Your task to perform on an android device: Search for dell xps on ebay.com, select the first entry, and add it to the cart. Image 0: 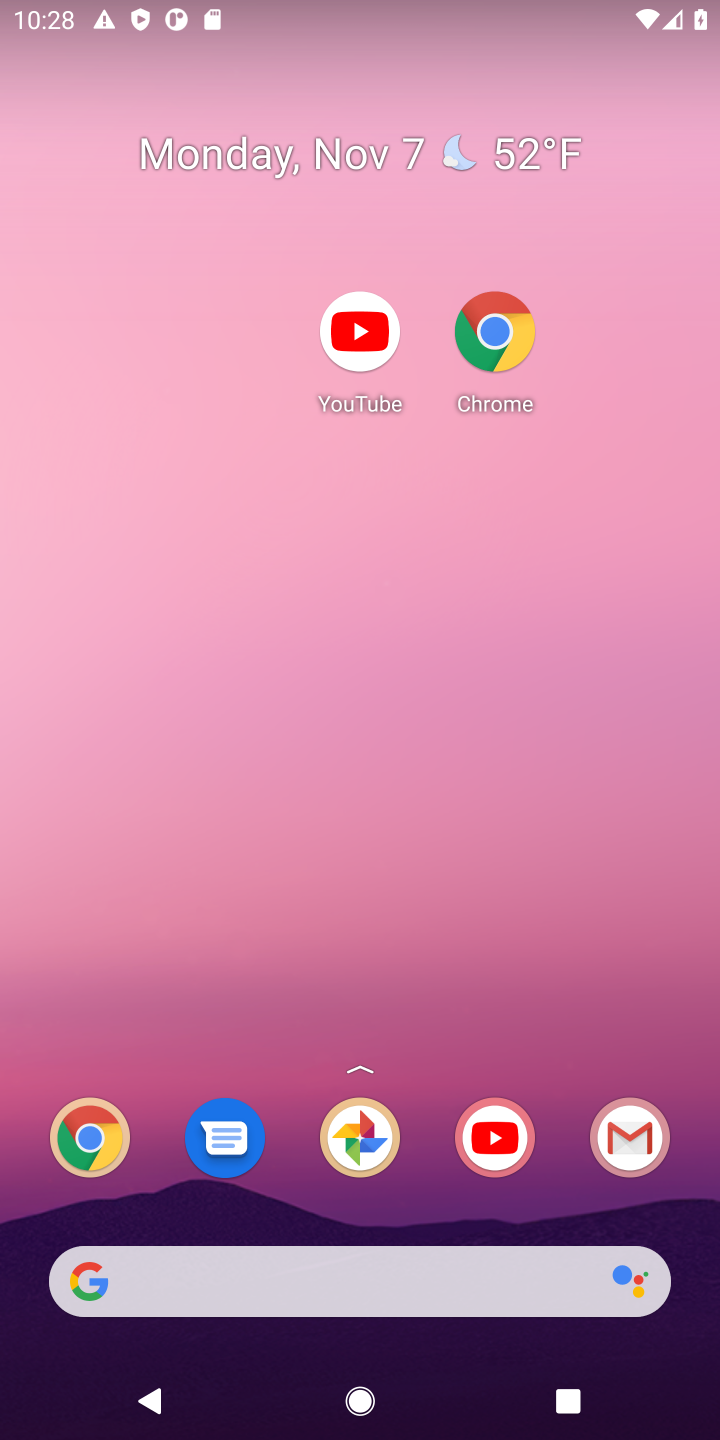
Step 0: press home button
Your task to perform on an android device: Search for dell xps on ebay.com, select the first entry, and add it to the cart. Image 1: 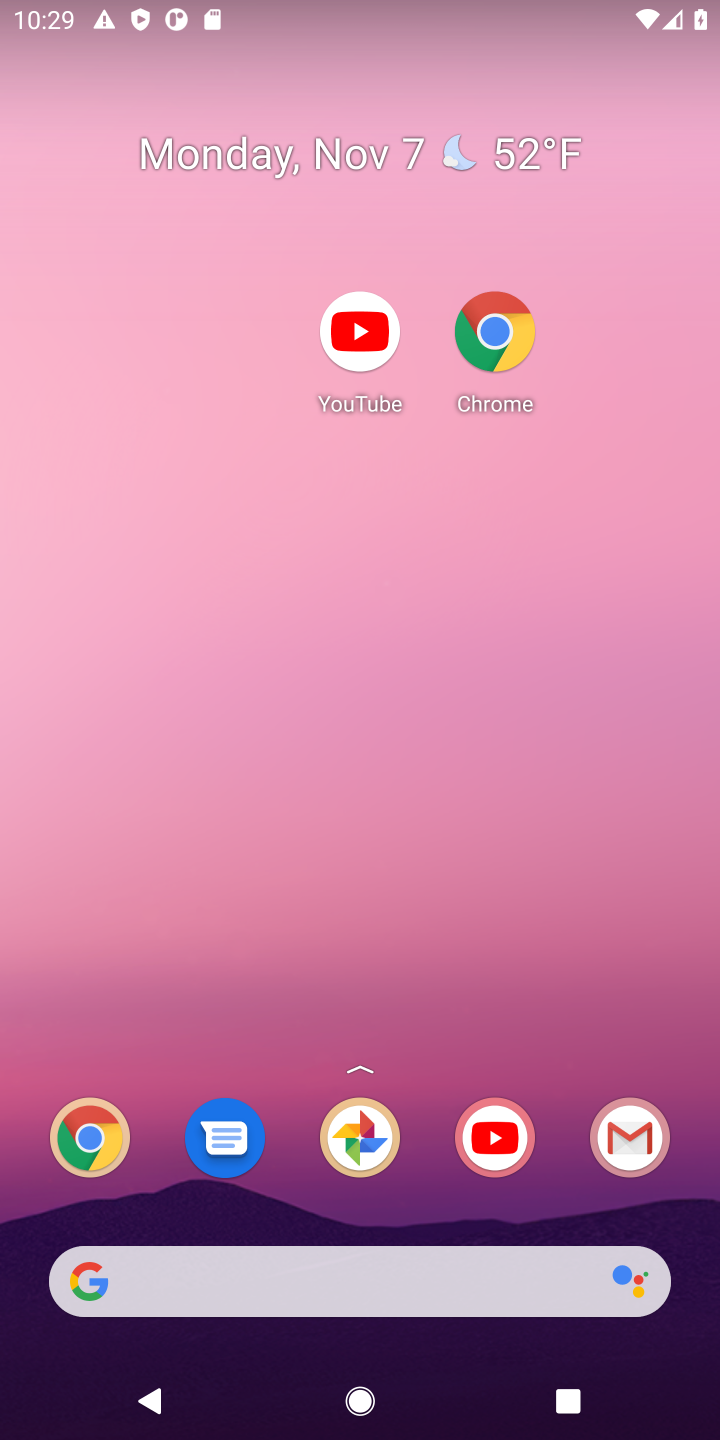
Step 1: drag from (371, 950) to (331, 206)
Your task to perform on an android device: Search for dell xps on ebay.com, select the first entry, and add it to the cart. Image 2: 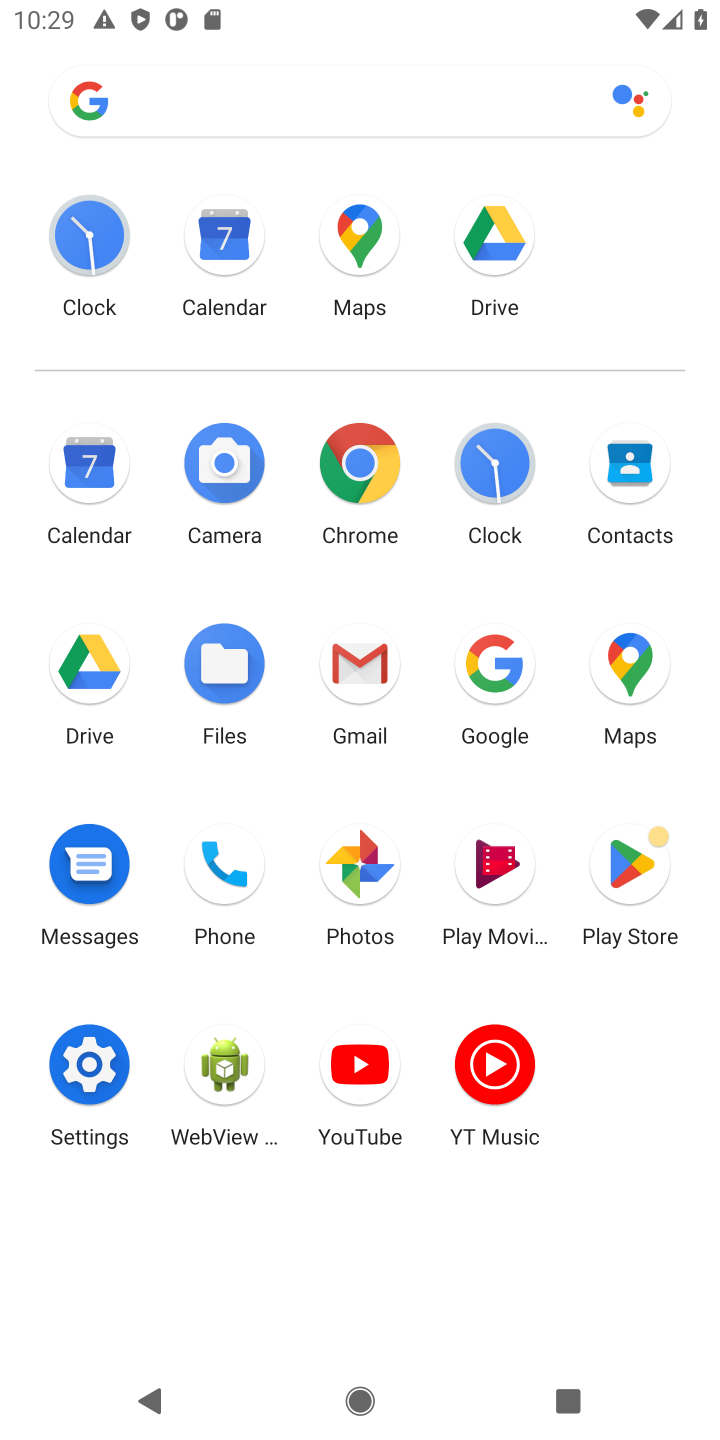
Step 2: click (361, 454)
Your task to perform on an android device: Search for dell xps on ebay.com, select the first entry, and add it to the cart. Image 3: 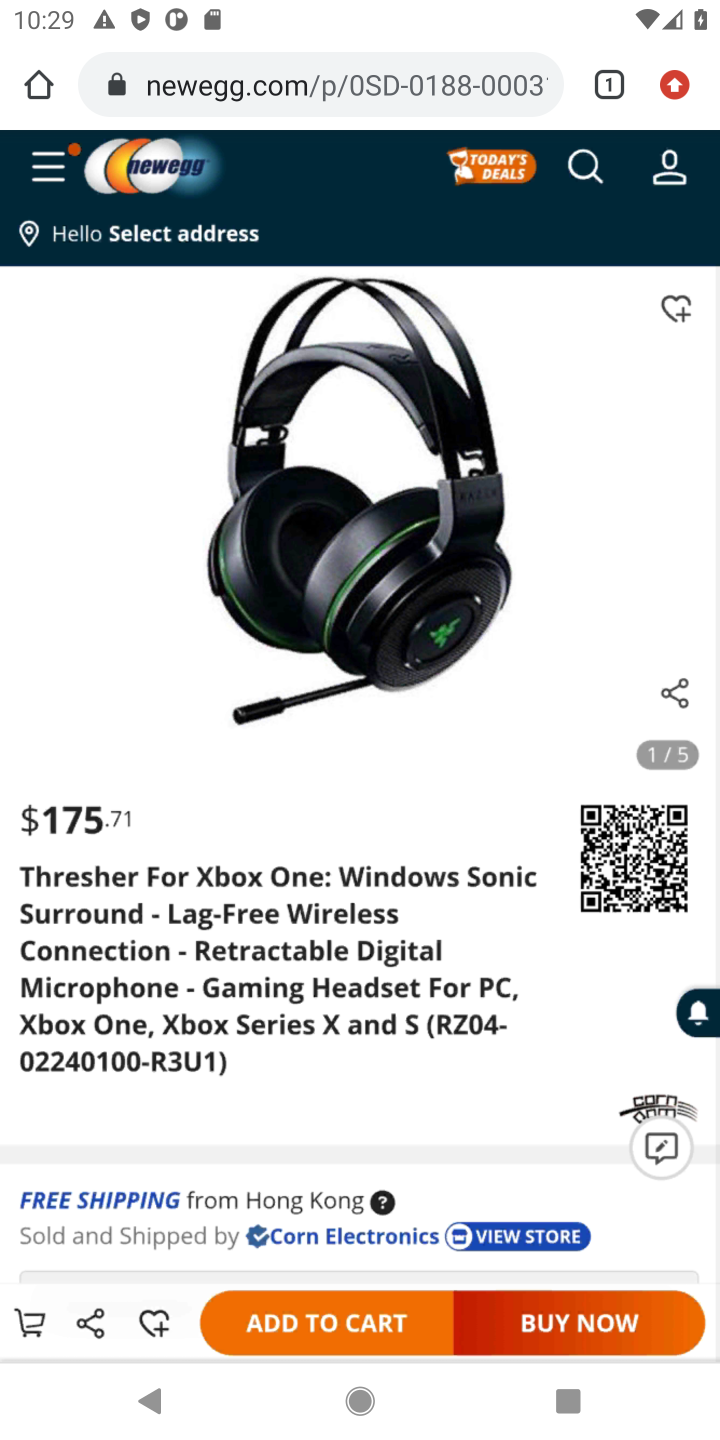
Step 3: click (272, 89)
Your task to perform on an android device: Search for dell xps on ebay.com, select the first entry, and add it to the cart. Image 4: 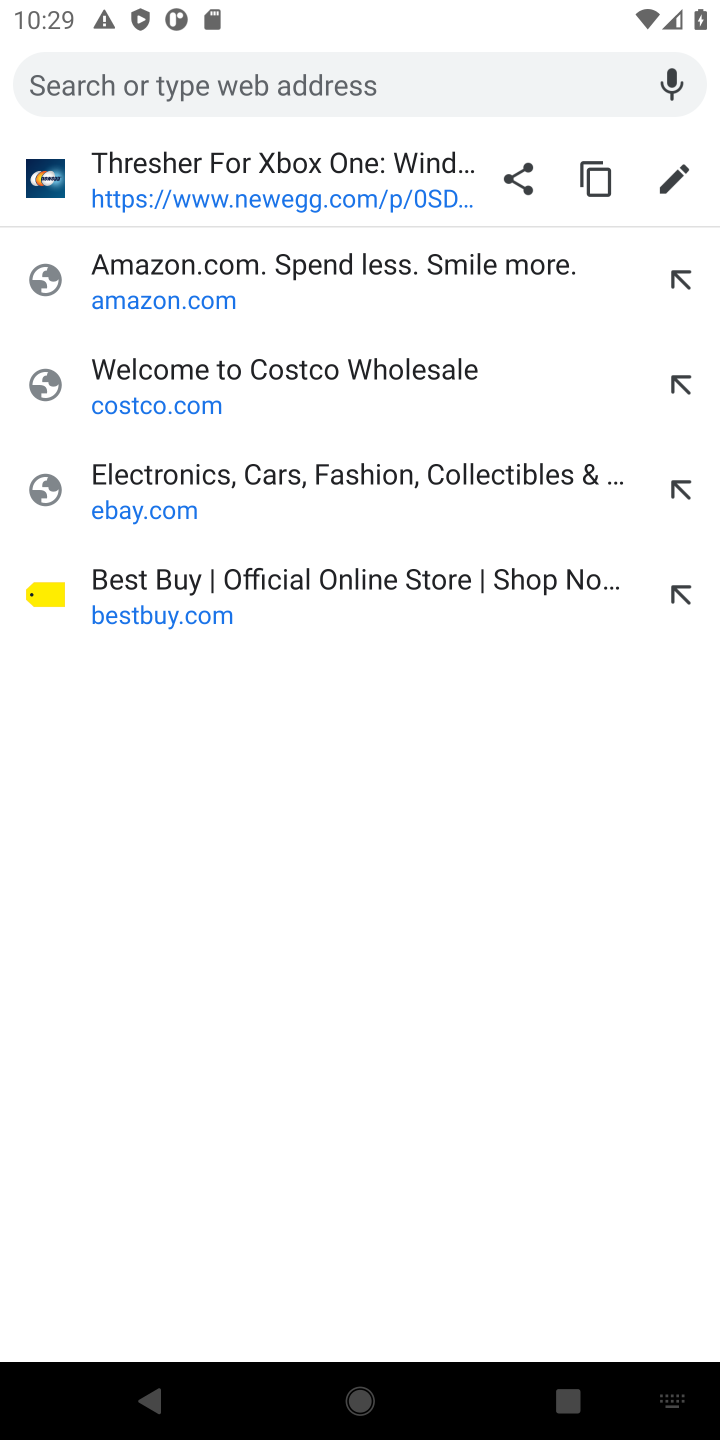
Step 4: type "ebay.com"
Your task to perform on an android device: Search for dell xps on ebay.com, select the first entry, and add it to the cart. Image 5: 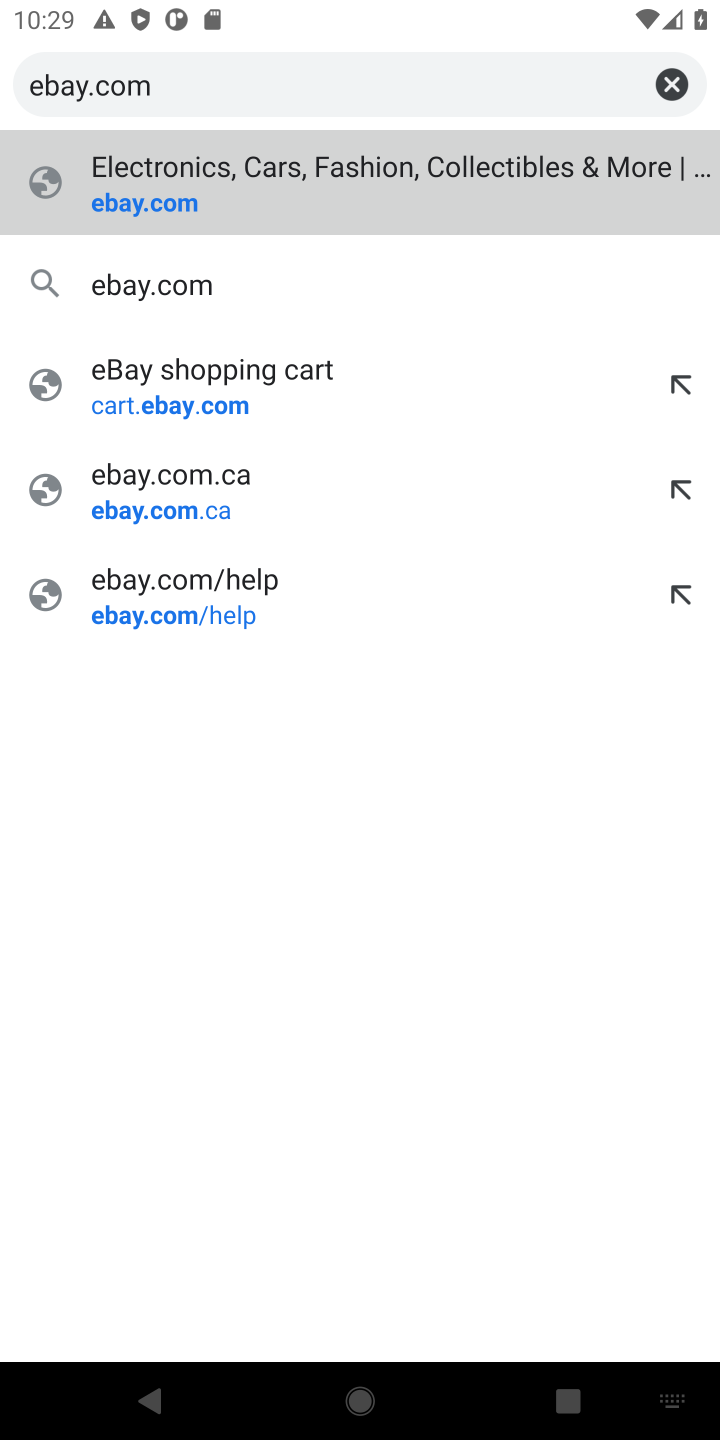
Step 5: press enter
Your task to perform on an android device: Search for dell xps on ebay.com, select the first entry, and add it to the cart. Image 6: 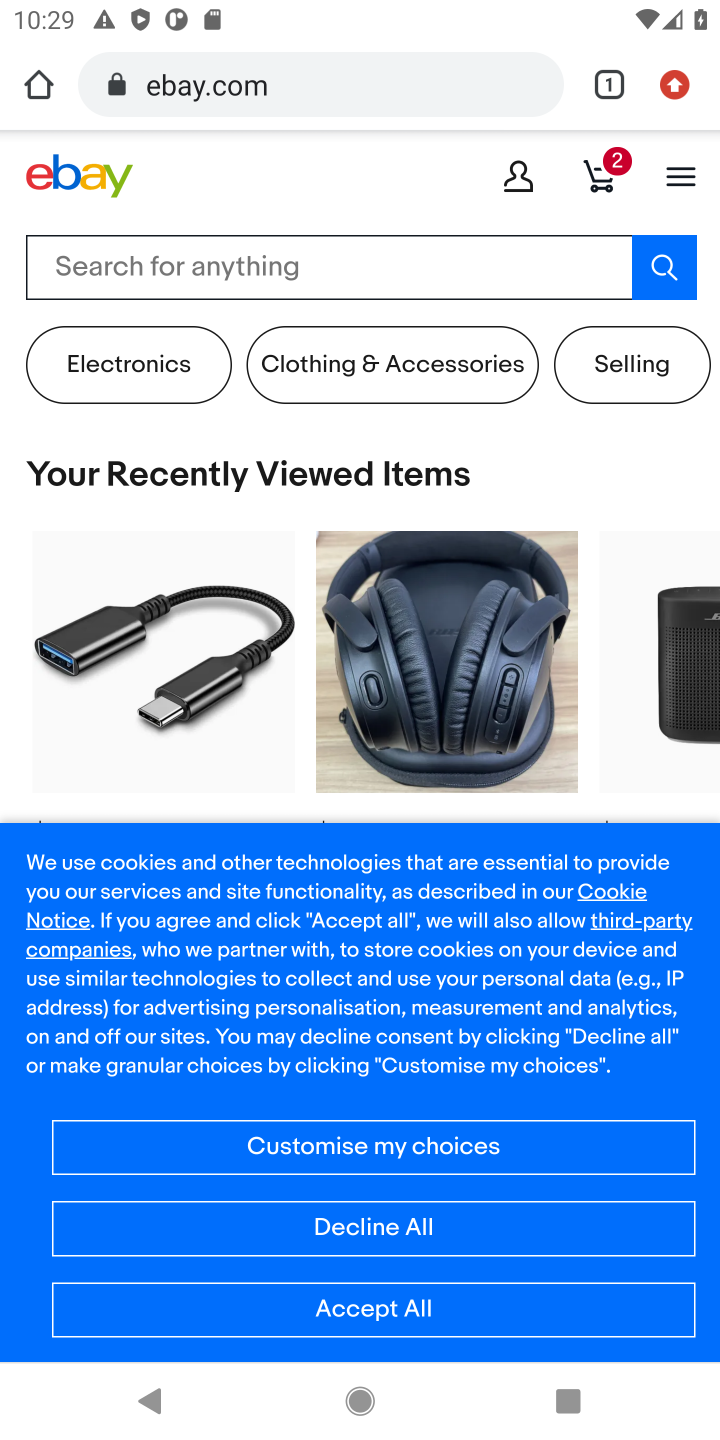
Step 6: click (469, 283)
Your task to perform on an android device: Search for dell xps on ebay.com, select the first entry, and add it to the cart. Image 7: 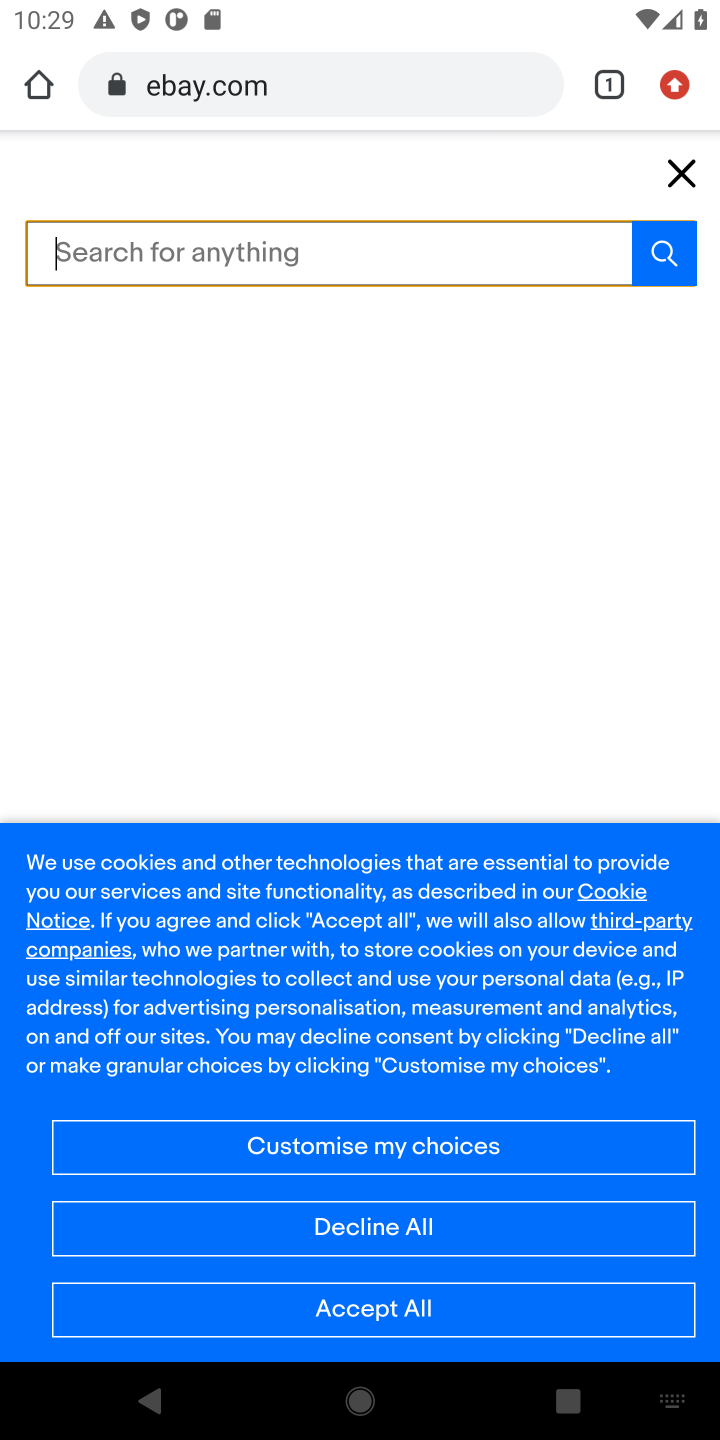
Step 7: type "dell xps"
Your task to perform on an android device: Search for dell xps on ebay.com, select the first entry, and add it to the cart. Image 8: 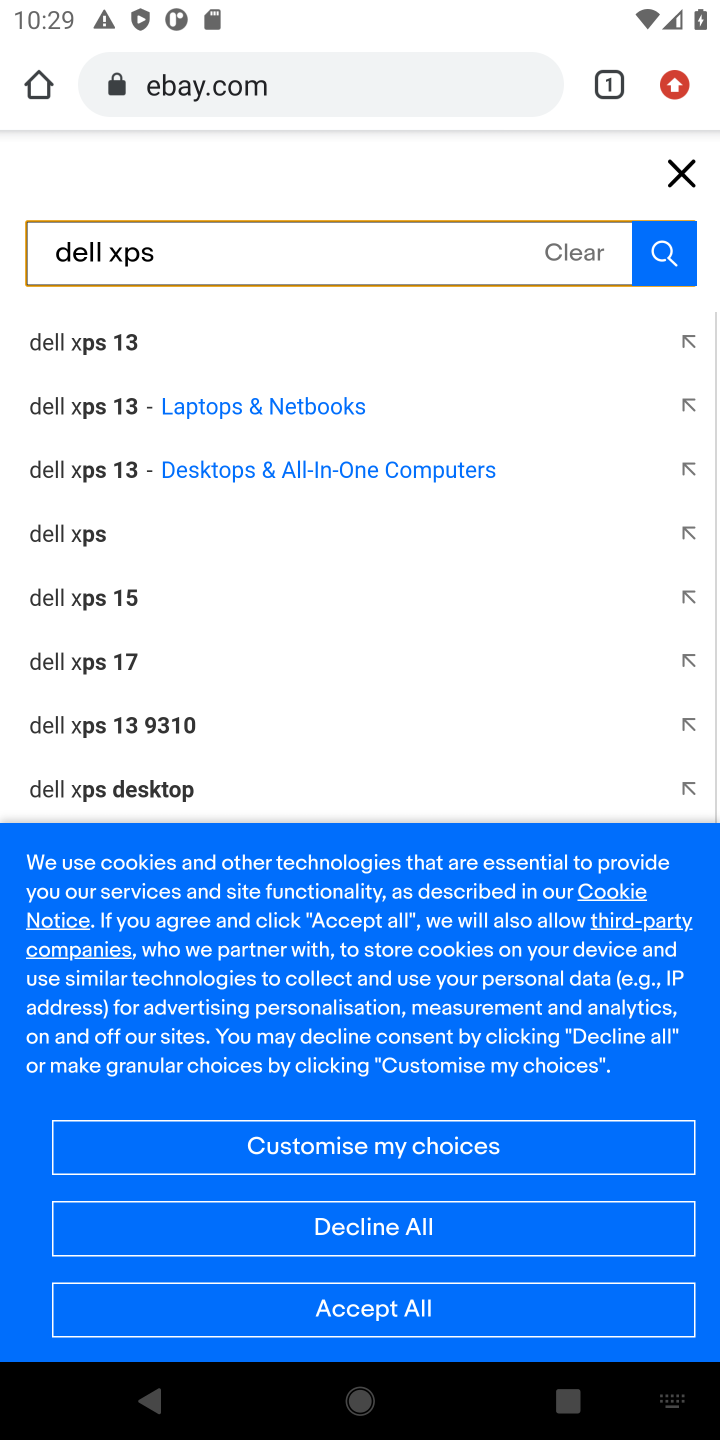
Step 8: press enter
Your task to perform on an android device: Search for dell xps on ebay.com, select the first entry, and add it to the cart. Image 9: 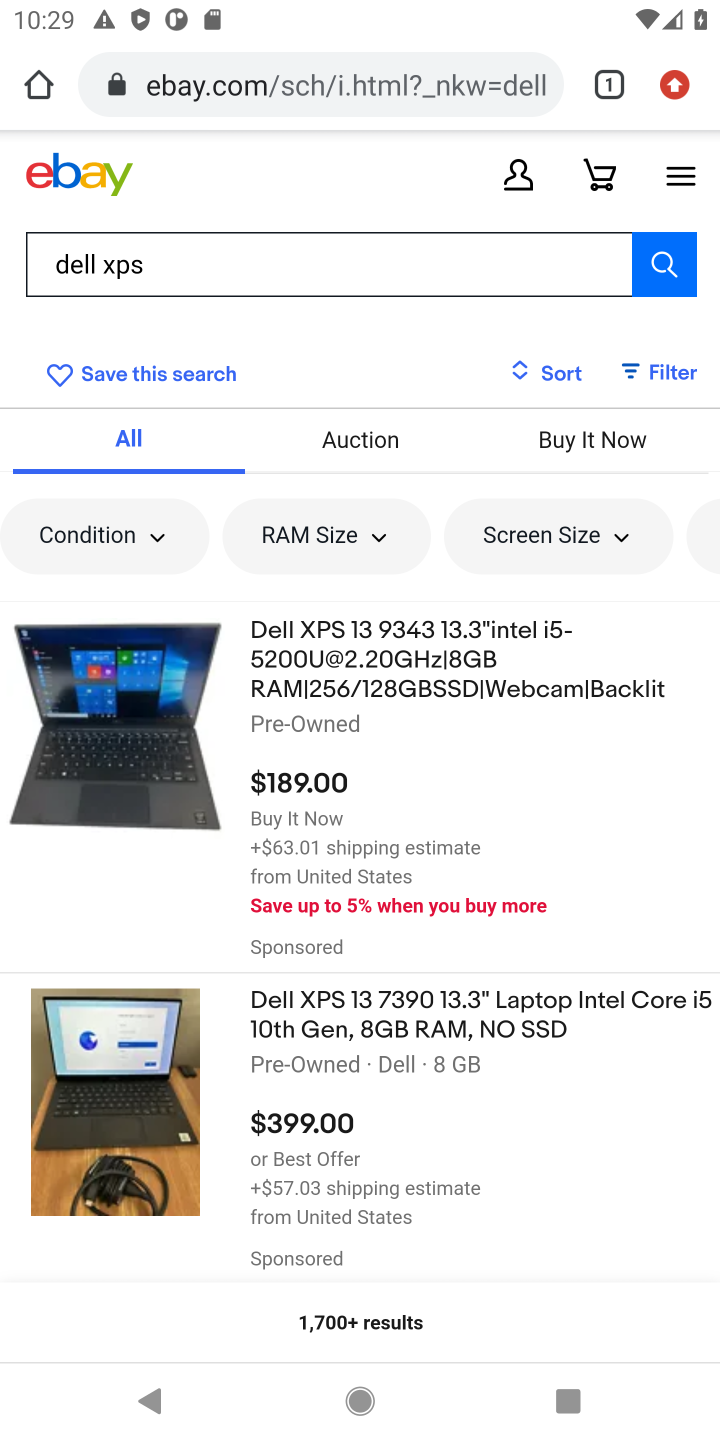
Step 9: click (287, 675)
Your task to perform on an android device: Search for dell xps on ebay.com, select the first entry, and add it to the cart. Image 10: 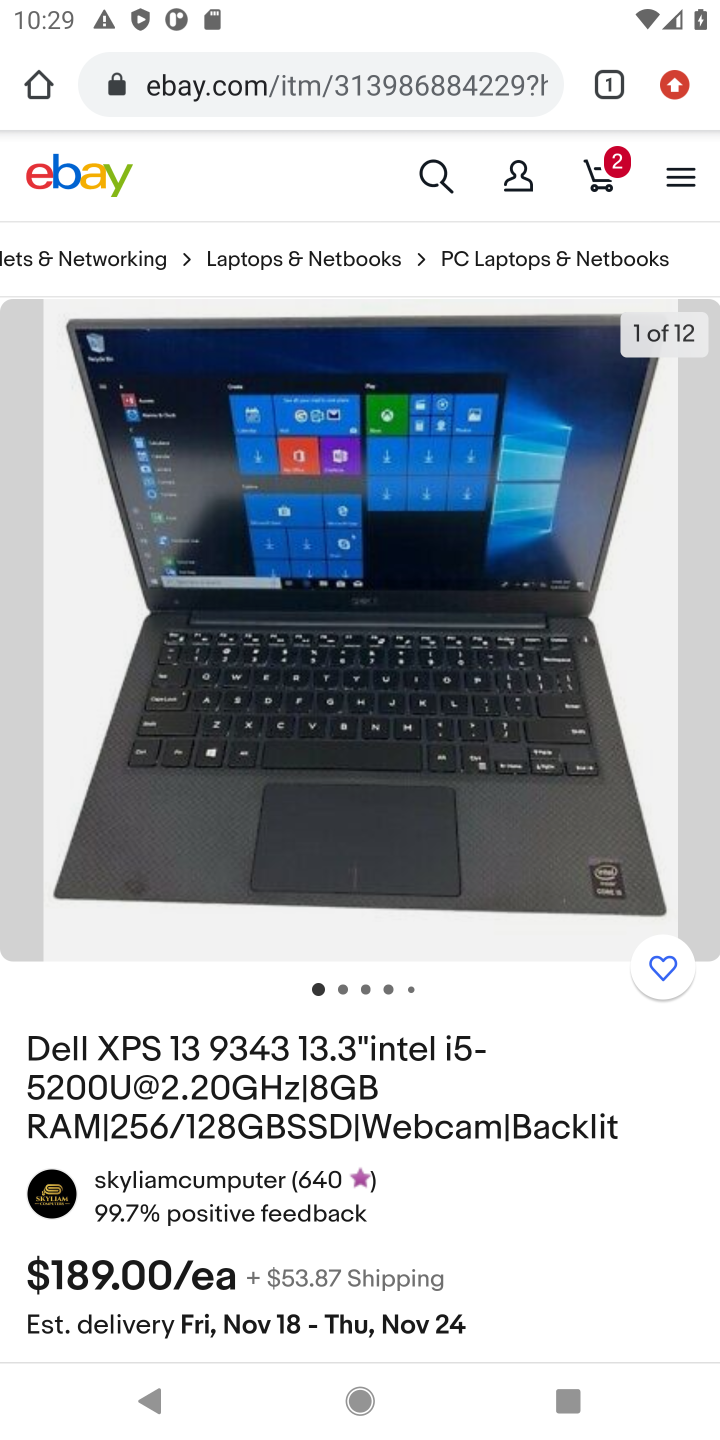
Step 10: drag from (366, 670) to (338, 435)
Your task to perform on an android device: Search for dell xps on ebay.com, select the first entry, and add it to the cart. Image 11: 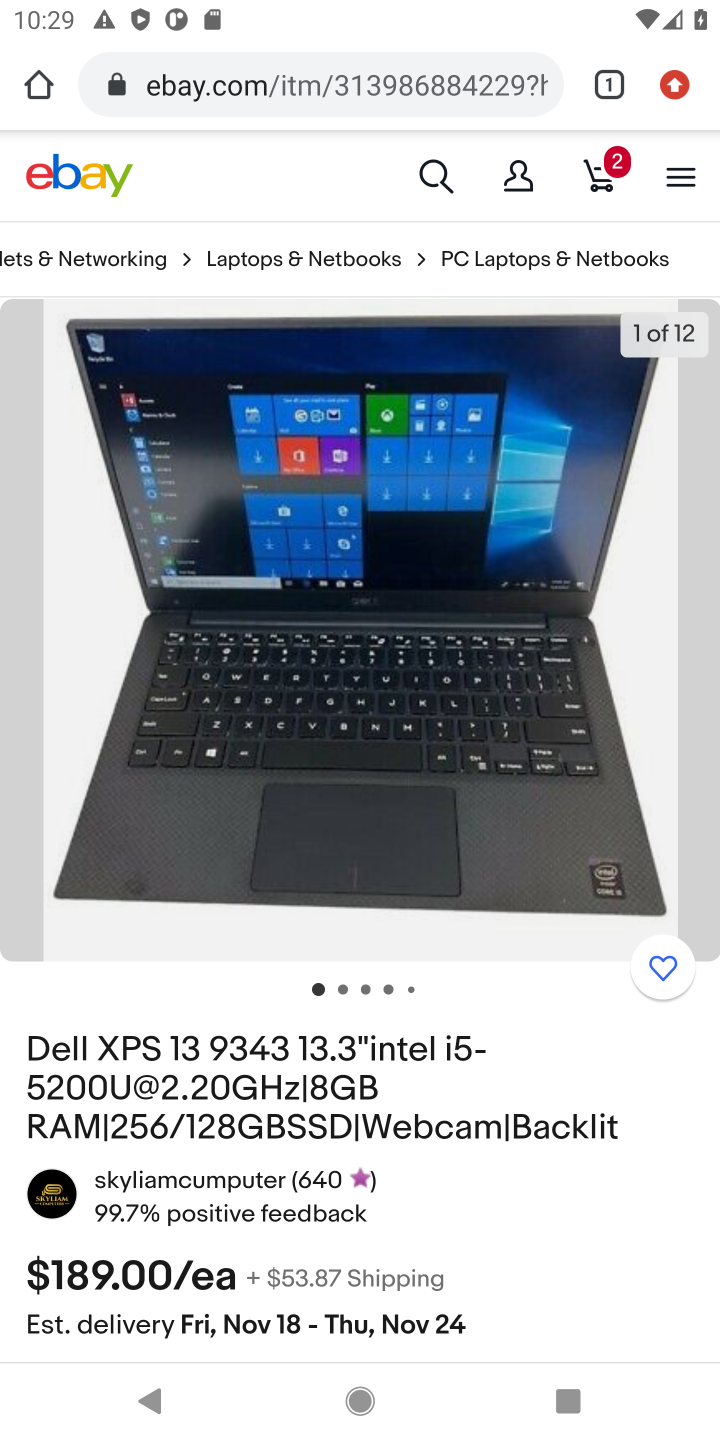
Step 11: drag from (325, 902) to (449, 440)
Your task to perform on an android device: Search for dell xps on ebay.com, select the first entry, and add it to the cart. Image 12: 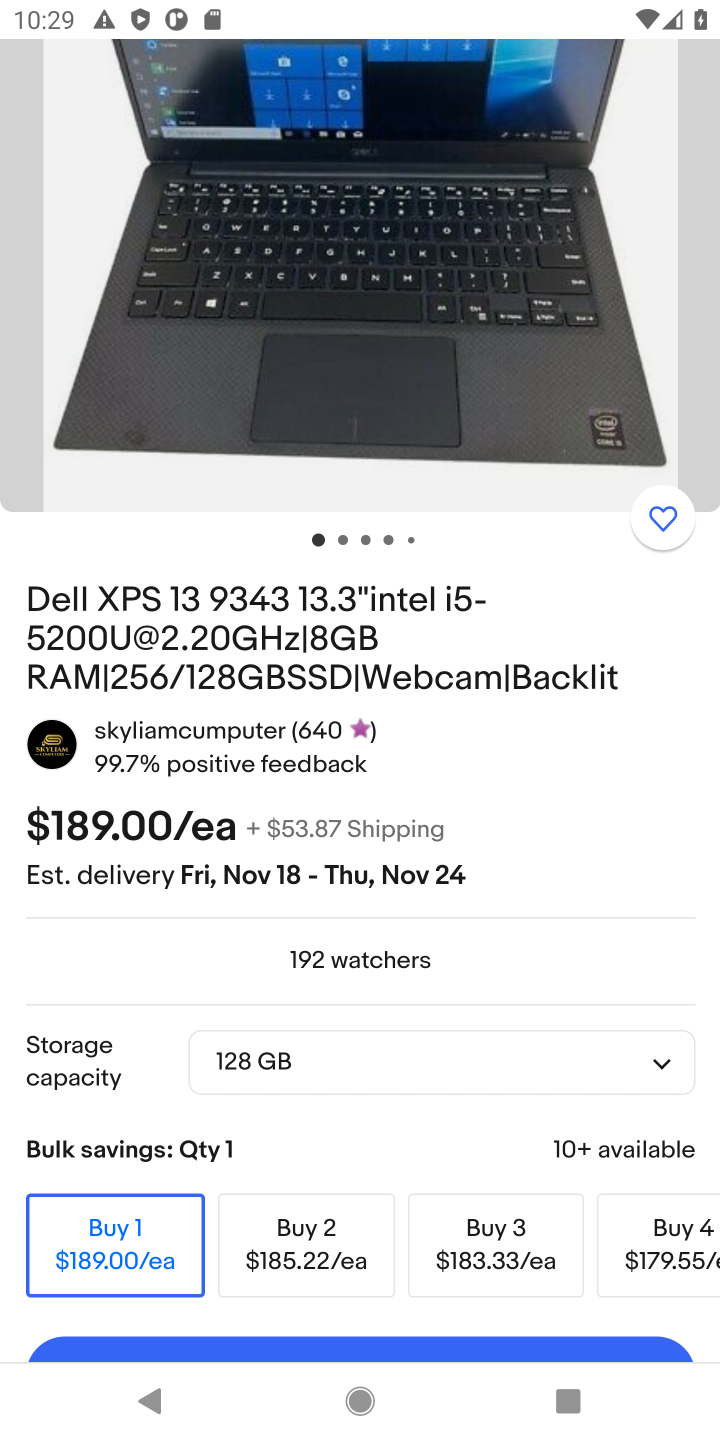
Step 12: drag from (358, 1124) to (417, 534)
Your task to perform on an android device: Search for dell xps on ebay.com, select the first entry, and add it to the cart. Image 13: 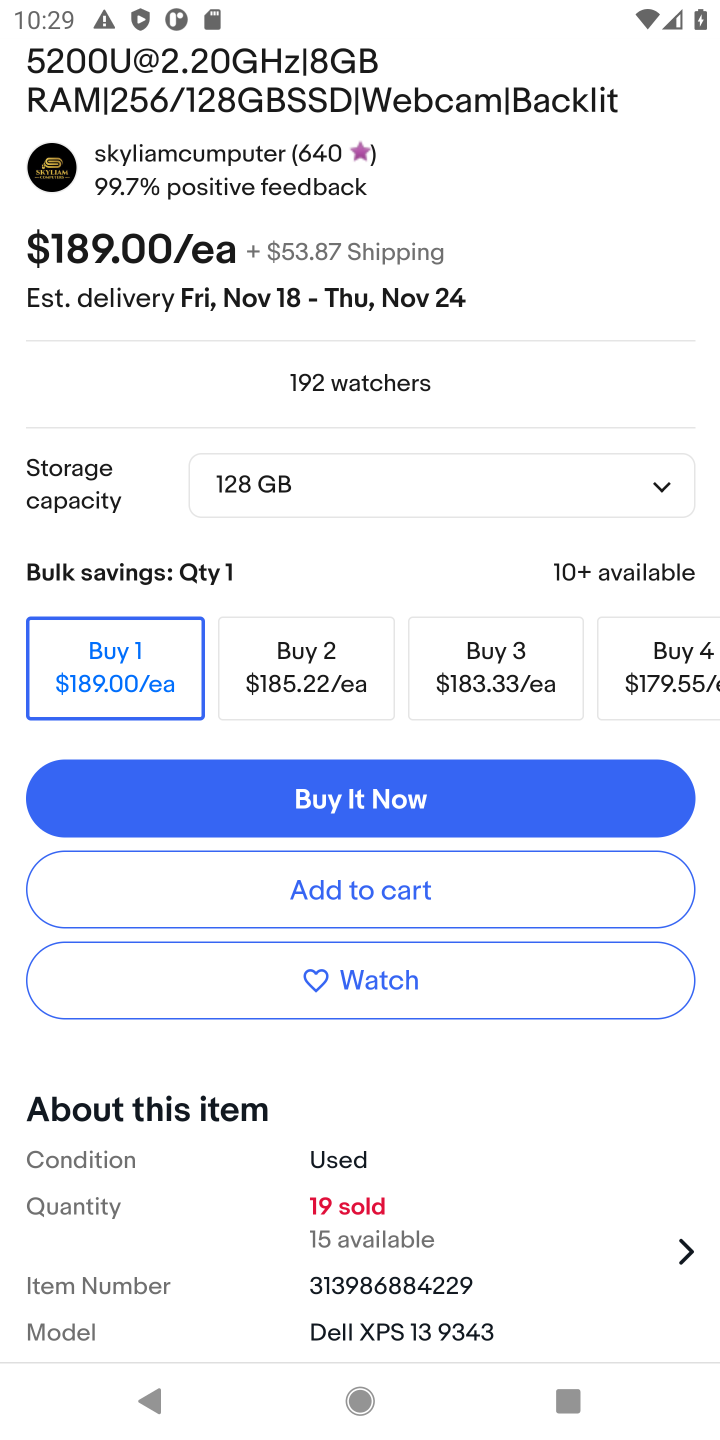
Step 13: click (459, 872)
Your task to perform on an android device: Search for dell xps on ebay.com, select the first entry, and add it to the cart. Image 14: 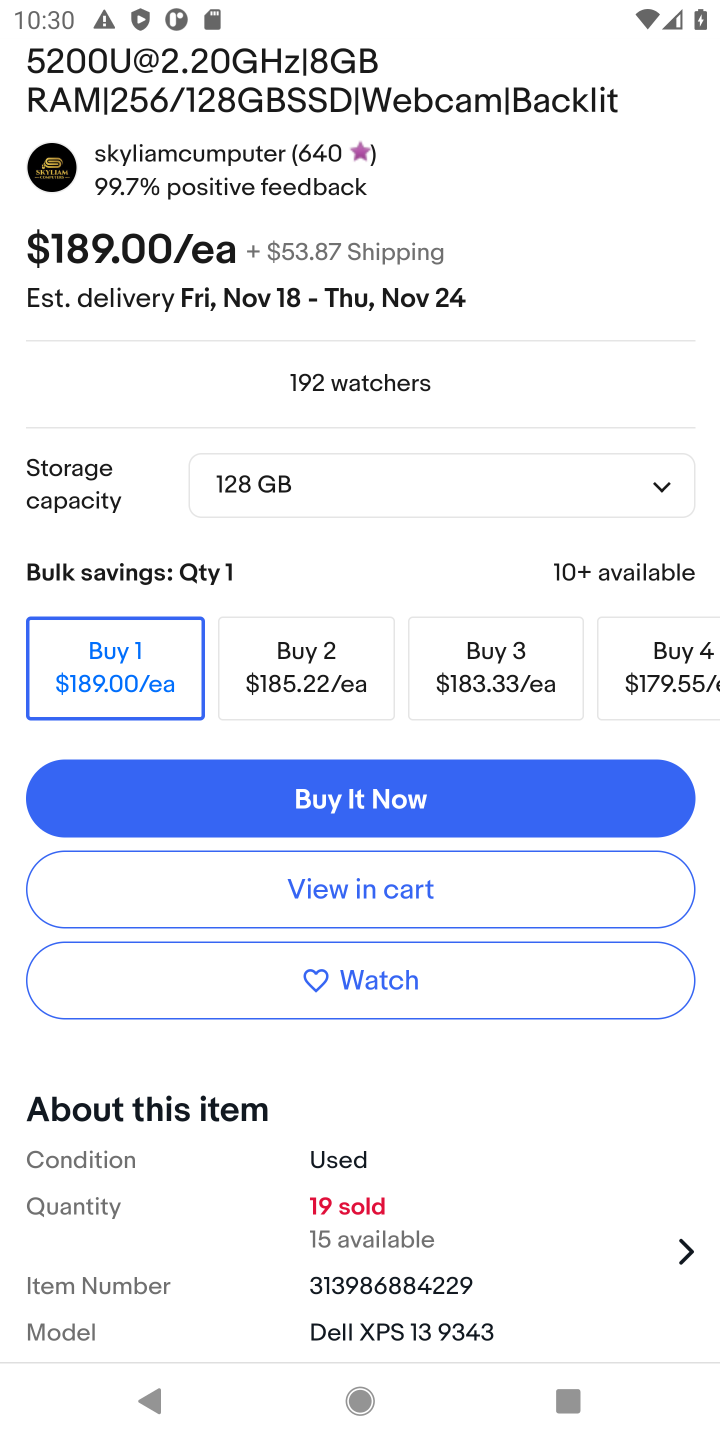
Step 14: task complete